Your task to perform on an android device: make emails show in primary in the gmail app Image 0: 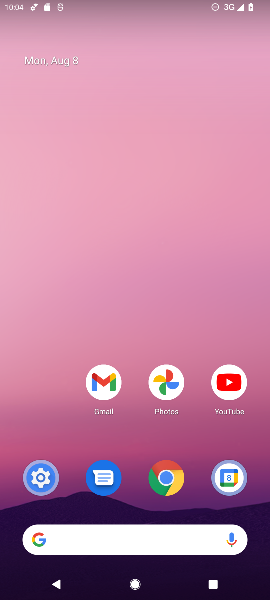
Step 0: drag from (190, 506) to (35, 558)
Your task to perform on an android device: make emails show in primary in the gmail app Image 1: 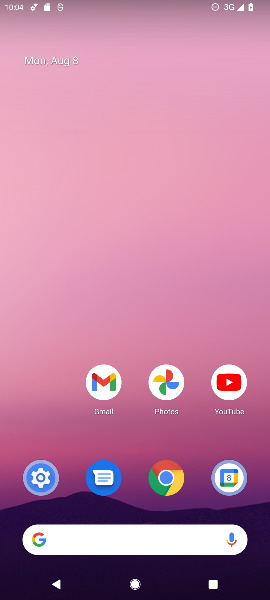
Step 1: drag from (184, 516) to (154, 45)
Your task to perform on an android device: make emails show in primary in the gmail app Image 2: 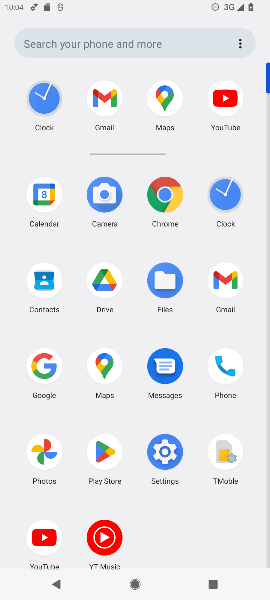
Step 2: click (222, 287)
Your task to perform on an android device: make emails show in primary in the gmail app Image 3: 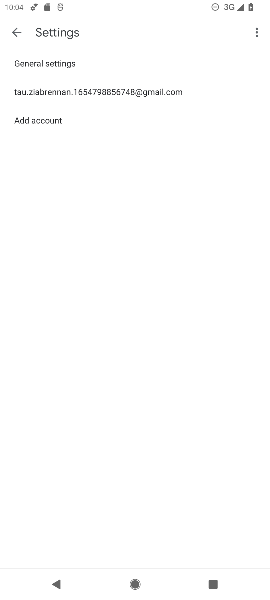
Step 3: click (10, 27)
Your task to perform on an android device: make emails show in primary in the gmail app Image 4: 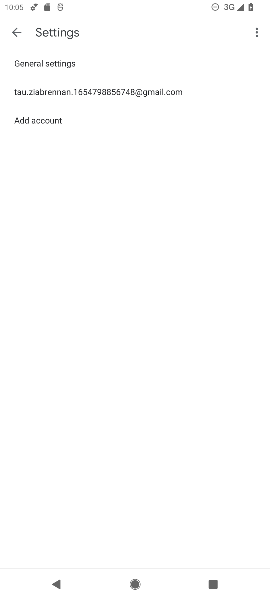
Step 4: click (6, 33)
Your task to perform on an android device: make emails show in primary in the gmail app Image 5: 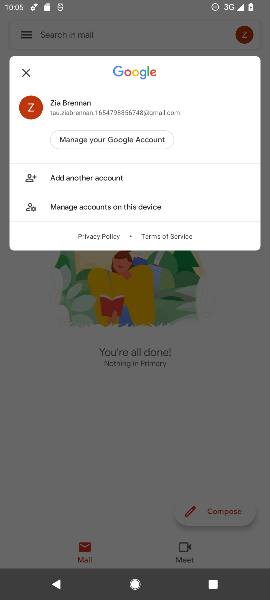
Step 5: click (172, 358)
Your task to perform on an android device: make emails show in primary in the gmail app Image 6: 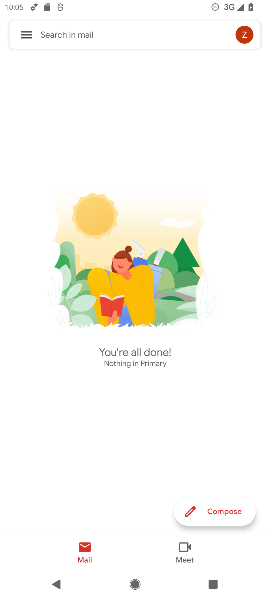
Step 6: task complete